Your task to perform on an android device: toggle wifi Image 0: 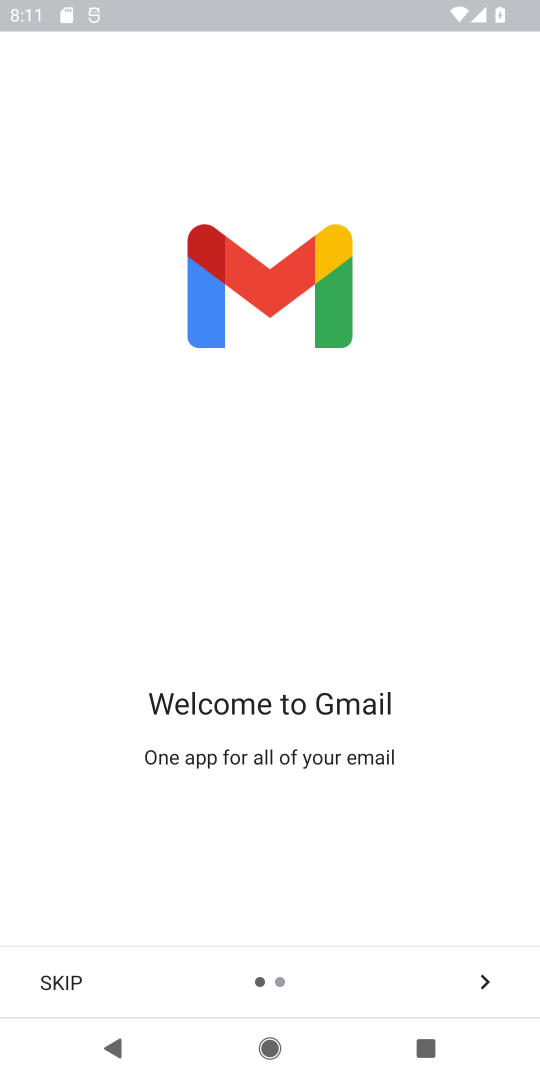
Step 0: click (66, 985)
Your task to perform on an android device: toggle wifi Image 1: 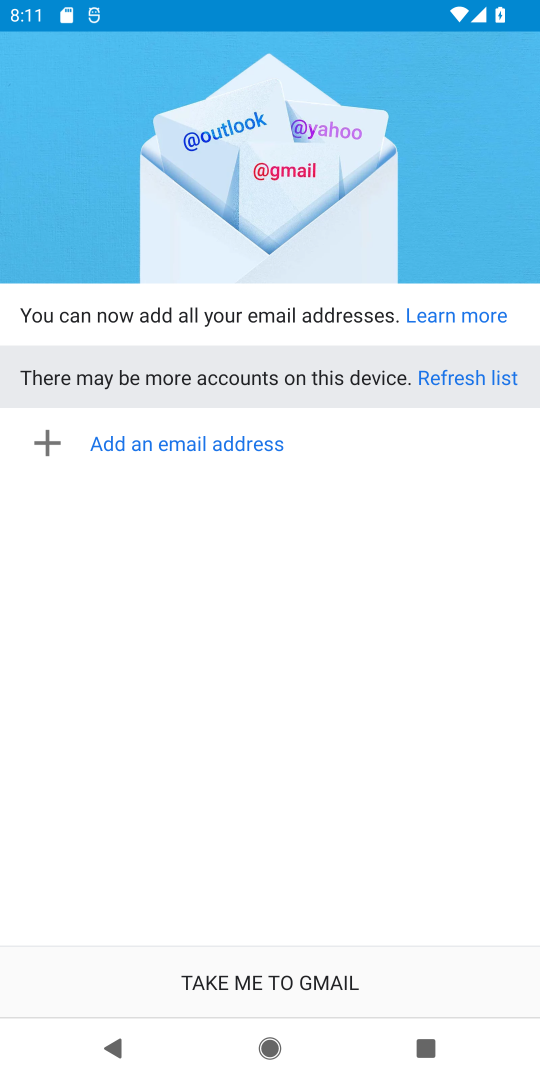
Step 1: drag from (217, 6) to (130, 1025)
Your task to perform on an android device: toggle wifi Image 2: 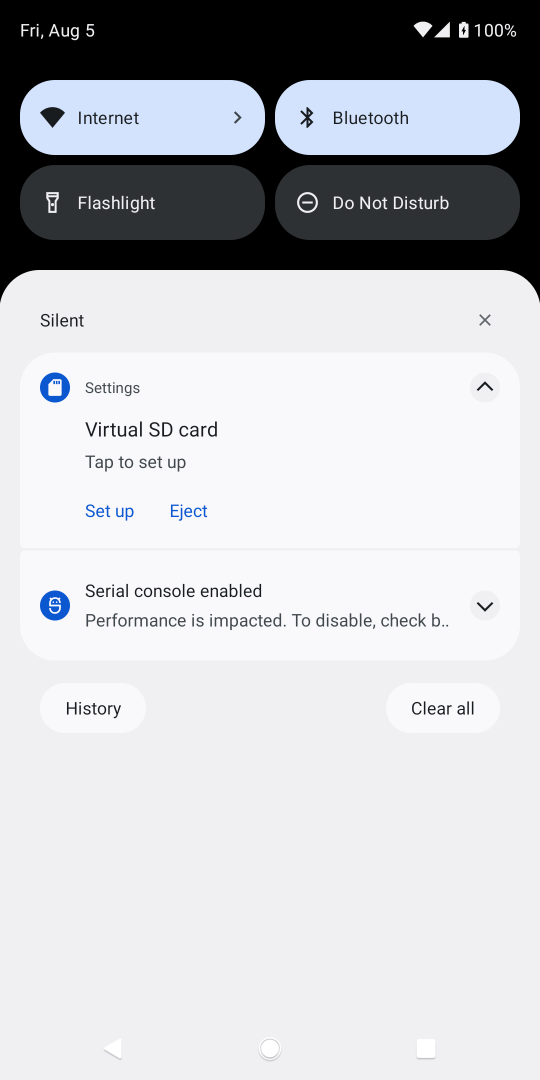
Step 2: drag from (270, 254) to (199, 545)
Your task to perform on an android device: toggle wifi Image 3: 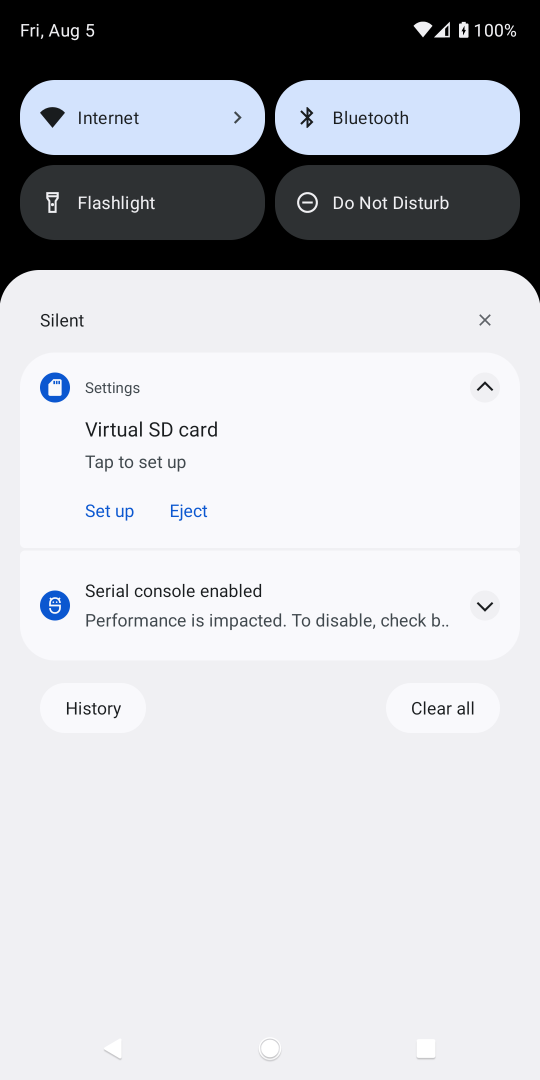
Step 3: click (204, 131)
Your task to perform on an android device: toggle wifi Image 4: 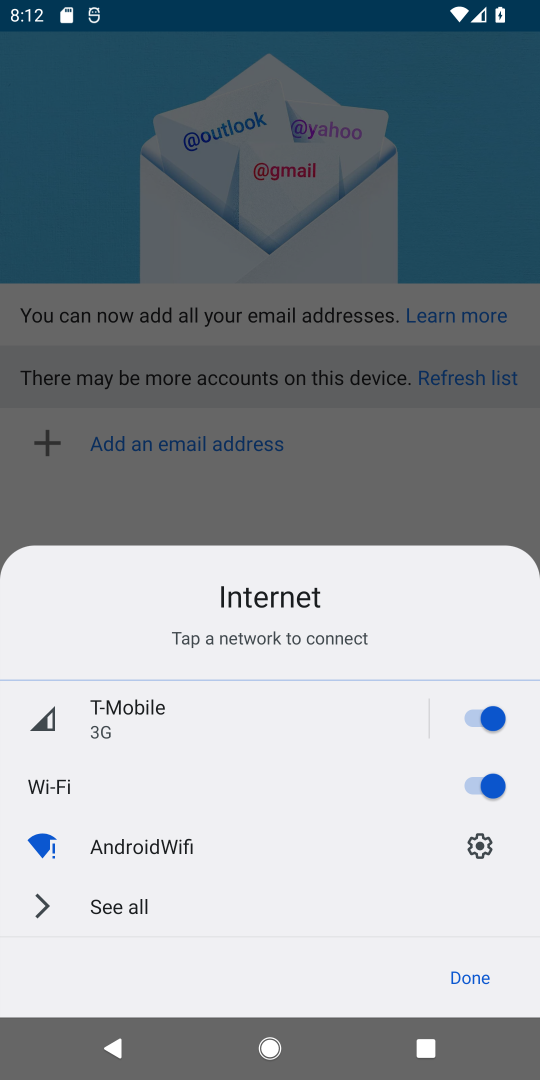
Step 4: click (489, 788)
Your task to perform on an android device: toggle wifi Image 5: 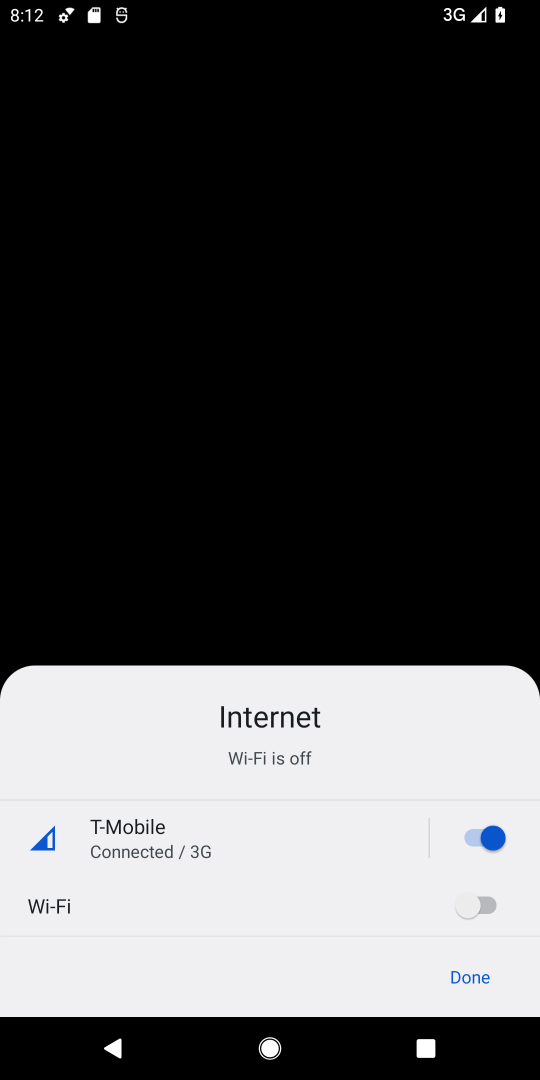
Step 5: task complete